Your task to perform on an android device: Open Google Maps and go to "Timeline" Image 0: 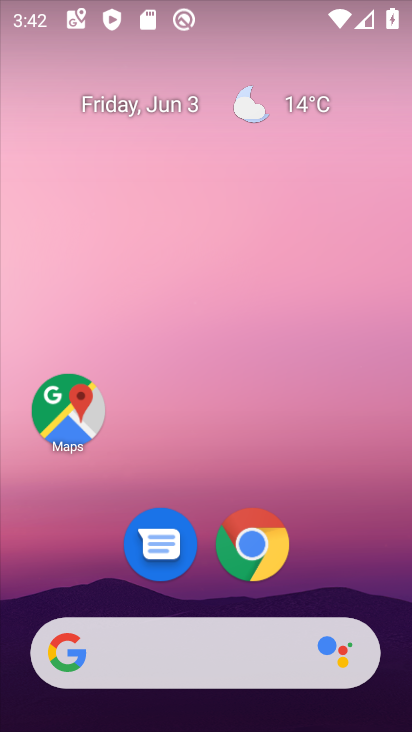
Step 0: click (67, 410)
Your task to perform on an android device: Open Google Maps and go to "Timeline" Image 1: 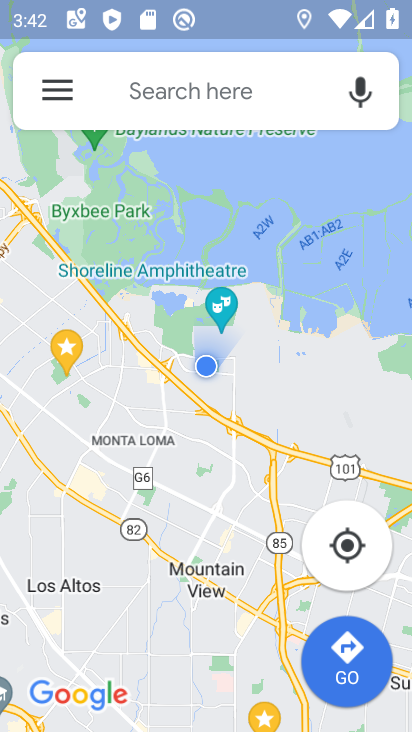
Step 1: click (60, 93)
Your task to perform on an android device: Open Google Maps and go to "Timeline" Image 2: 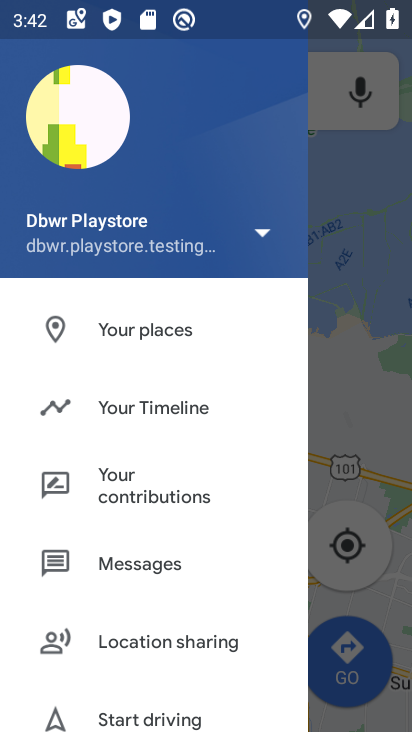
Step 2: click (137, 410)
Your task to perform on an android device: Open Google Maps and go to "Timeline" Image 3: 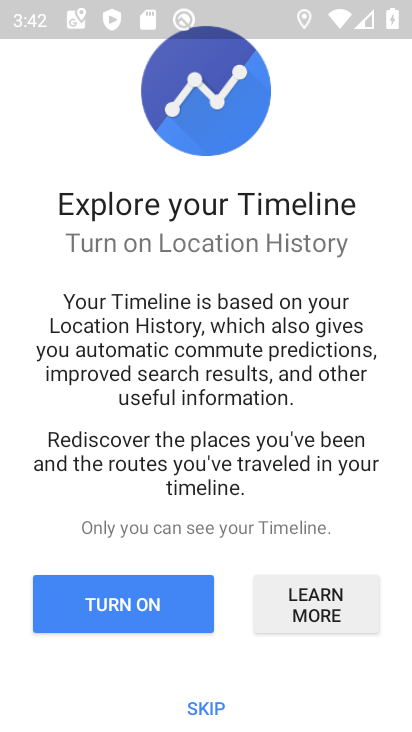
Step 3: click (208, 700)
Your task to perform on an android device: Open Google Maps and go to "Timeline" Image 4: 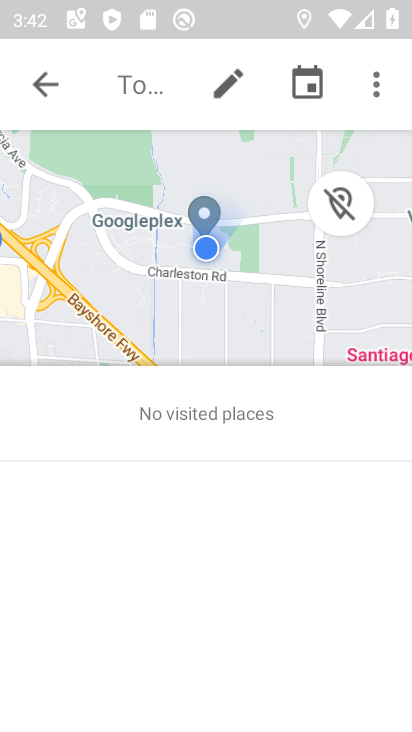
Step 4: task complete